Your task to perform on an android device: add a contact Image 0: 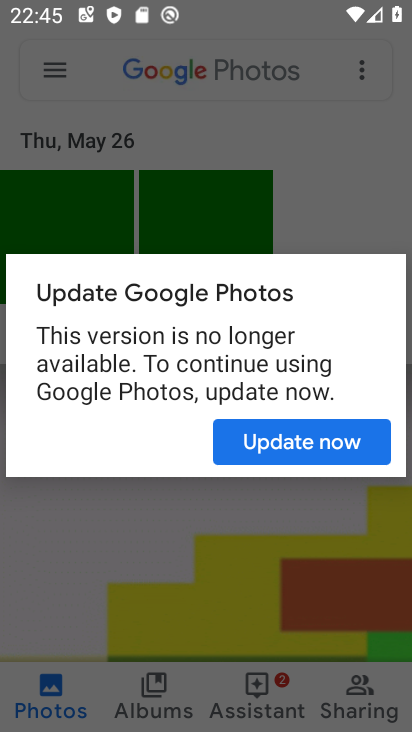
Step 0: press home button
Your task to perform on an android device: add a contact Image 1: 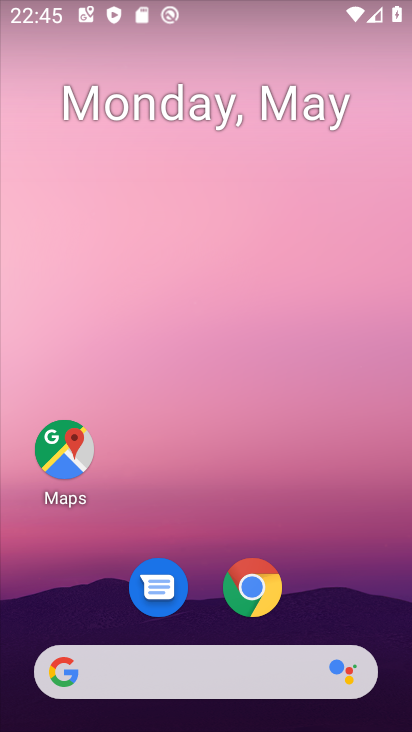
Step 1: drag from (197, 631) to (205, 16)
Your task to perform on an android device: add a contact Image 2: 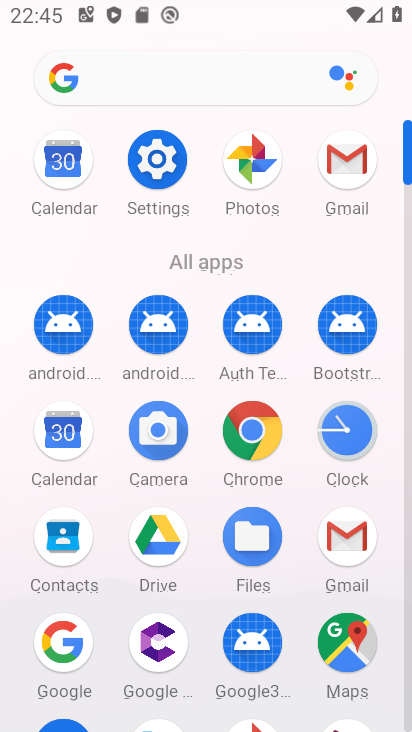
Step 2: drag from (194, 623) to (195, 307)
Your task to perform on an android device: add a contact Image 3: 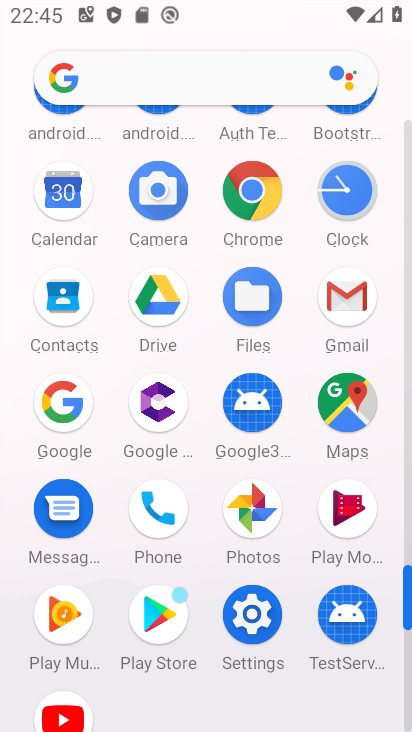
Step 3: click (164, 519)
Your task to perform on an android device: add a contact Image 4: 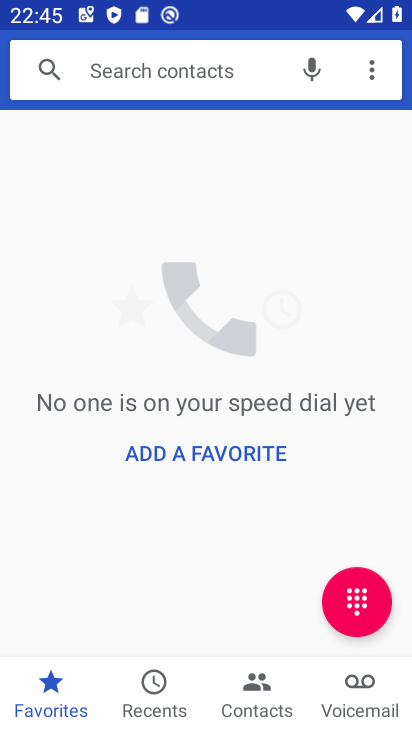
Step 4: click (245, 697)
Your task to perform on an android device: add a contact Image 5: 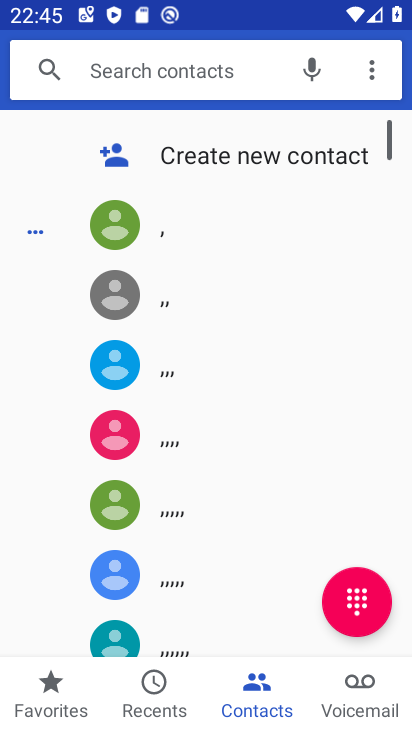
Step 5: click (220, 158)
Your task to perform on an android device: add a contact Image 6: 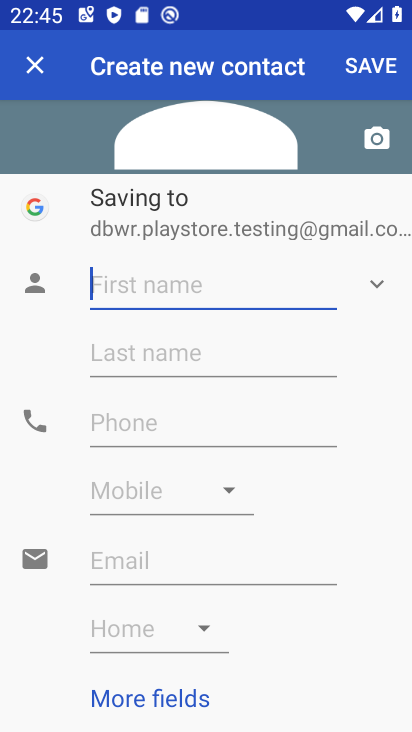
Step 6: type "jkjk"
Your task to perform on an android device: add a contact Image 7: 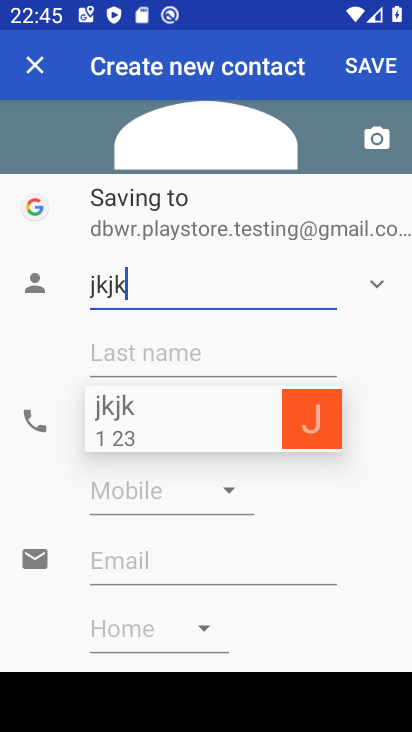
Step 7: click (155, 448)
Your task to perform on an android device: add a contact Image 8: 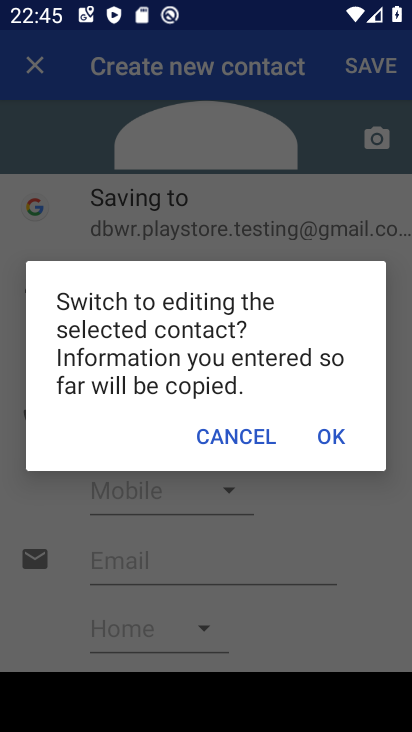
Step 8: click (374, 69)
Your task to perform on an android device: add a contact Image 9: 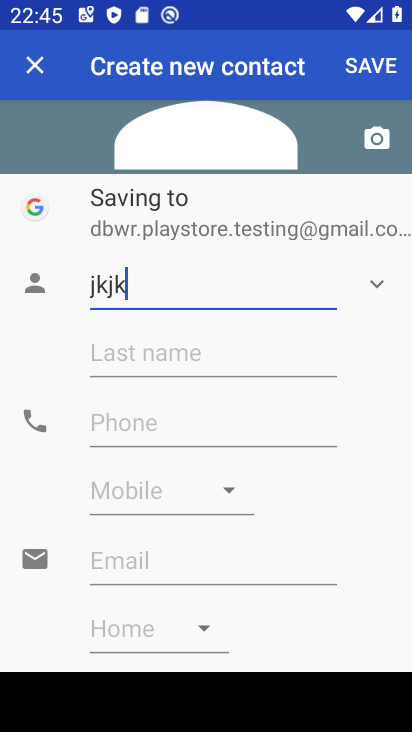
Step 9: click (360, 72)
Your task to perform on an android device: add a contact Image 10: 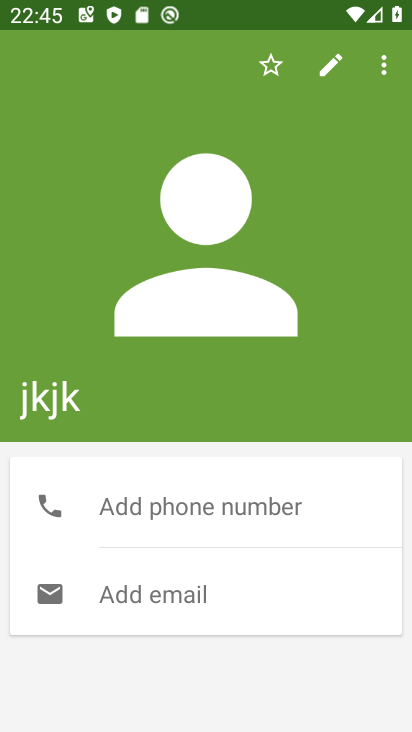
Step 10: task complete